Your task to perform on an android device: Open Maps and search for coffee Image 0: 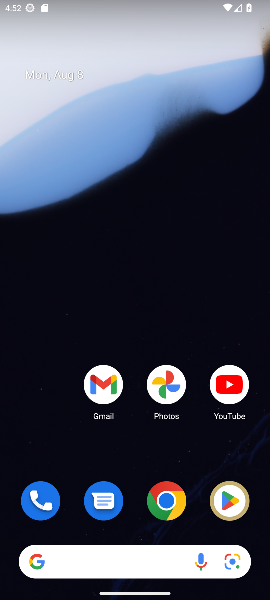
Step 0: drag from (24, 540) to (146, 280)
Your task to perform on an android device: Open Maps and search for coffee Image 1: 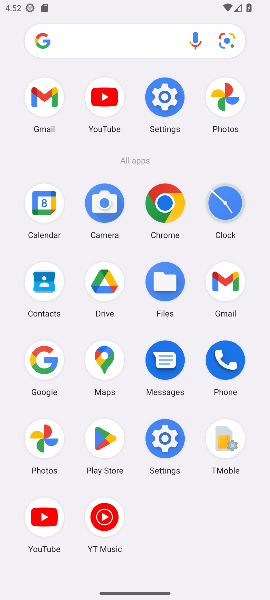
Step 1: click (102, 360)
Your task to perform on an android device: Open Maps and search for coffee Image 2: 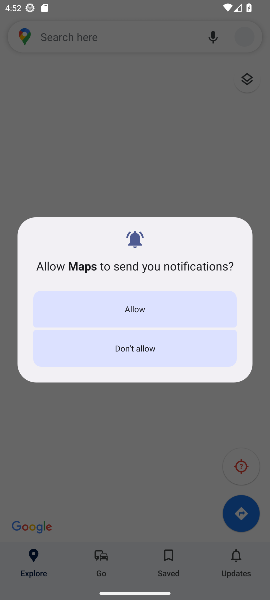
Step 2: click (118, 297)
Your task to perform on an android device: Open Maps and search for coffee Image 3: 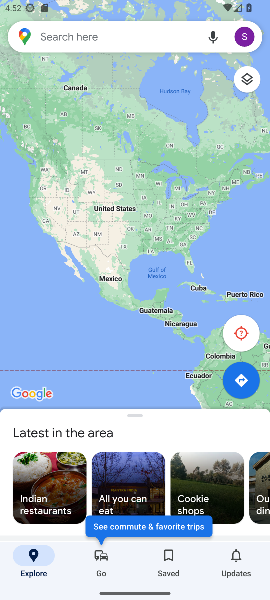
Step 3: click (61, 32)
Your task to perform on an android device: Open Maps and search for coffee Image 4: 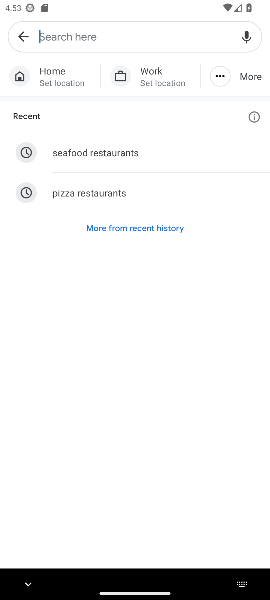
Step 4: type "coffee"
Your task to perform on an android device: Open Maps and search for coffee Image 5: 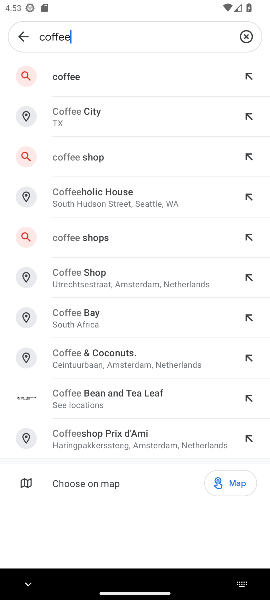
Step 5: click (70, 72)
Your task to perform on an android device: Open Maps and search for coffee Image 6: 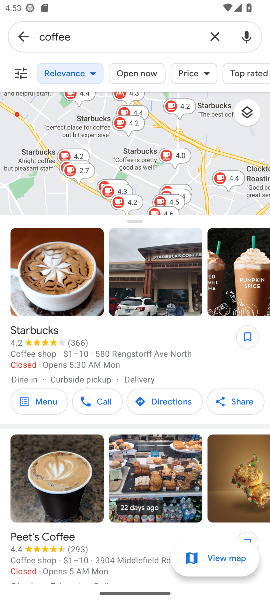
Step 6: task complete